Your task to perform on an android device: What's the weather? Image 0: 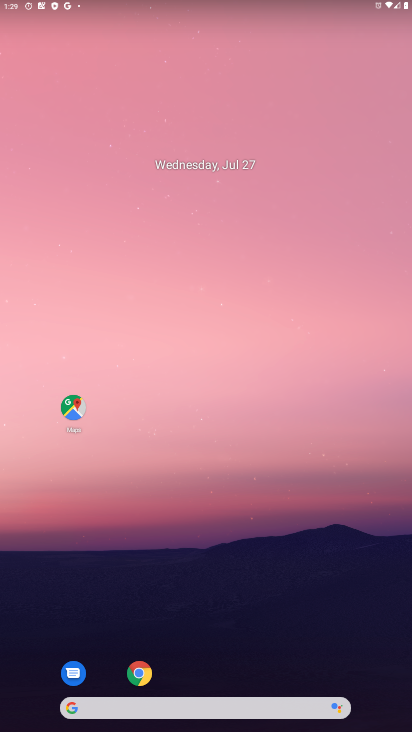
Step 0: click (158, 705)
Your task to perform on an android device: What's the weather? Image 1: 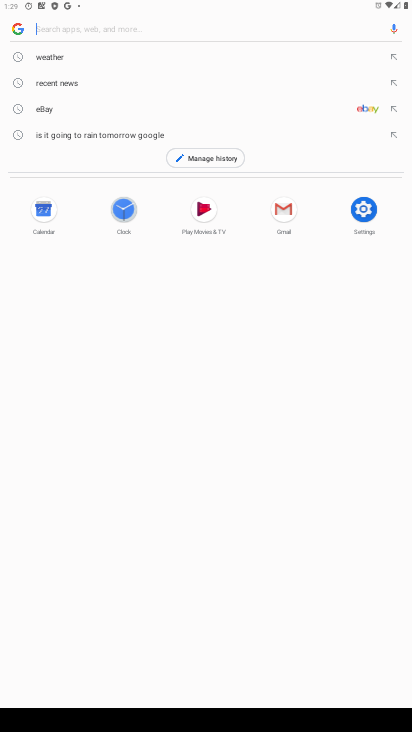
Step 1: click (54, 68)
Your task to perform on an android device: What's the weather? Image 2: 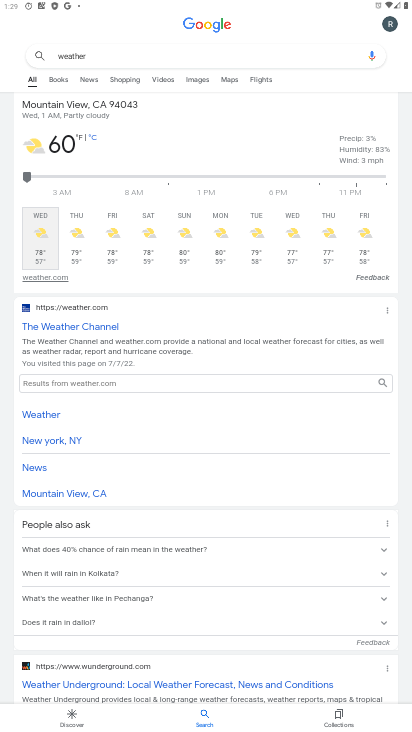
Step 2: task complete